Your task to perform on an android device: turn off location history Image 0: 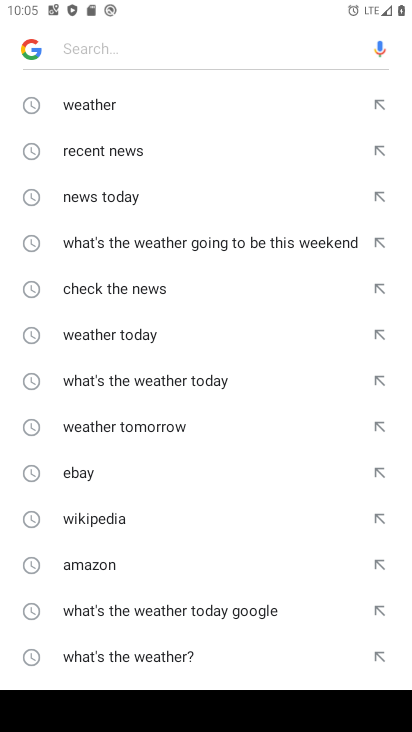
Step 0: press home button
Your task to perform on an android device: turn off location history Image 1: 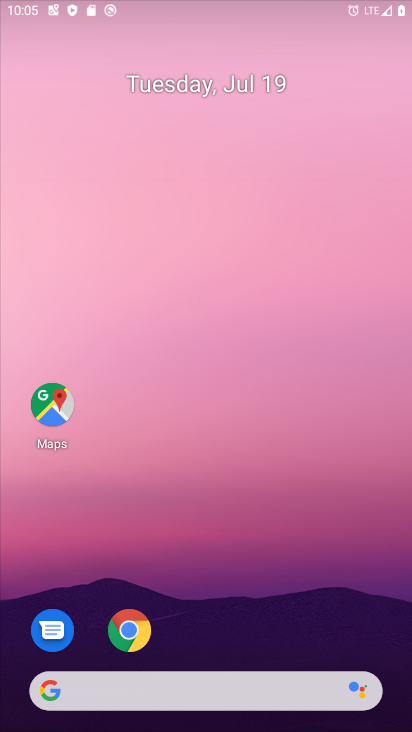
Step 1: drag from (212, 609) to (254, 106)
Your task to perform on an android device: turn off location history Image 2: 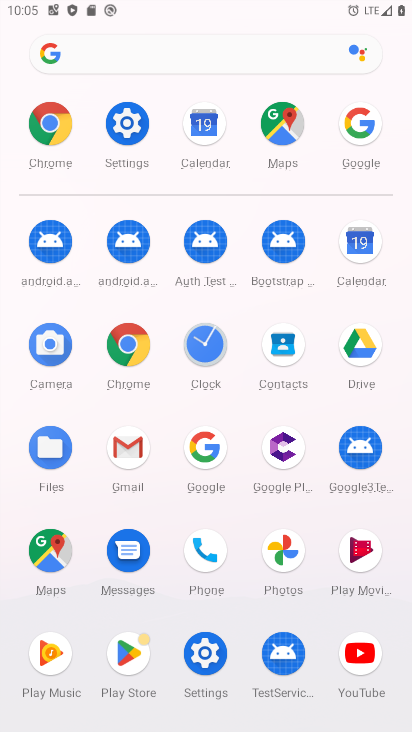
Step 2: click (126, 127)
Your task to perform on an android device: turn off location history Image 3: 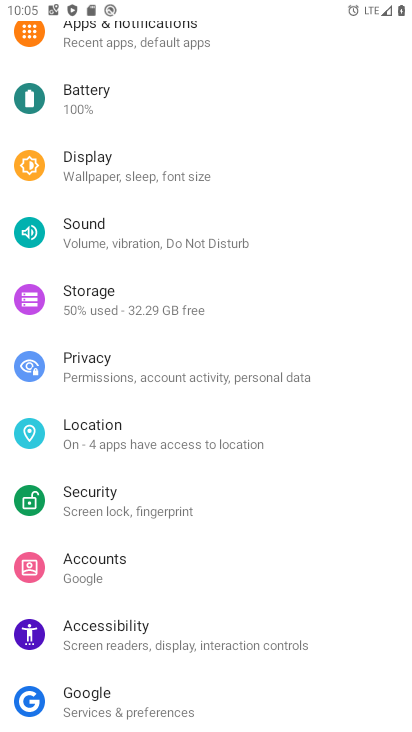
Step 3: click (152, 439)
Your task to perform on an android device: turn off location history Image 4: 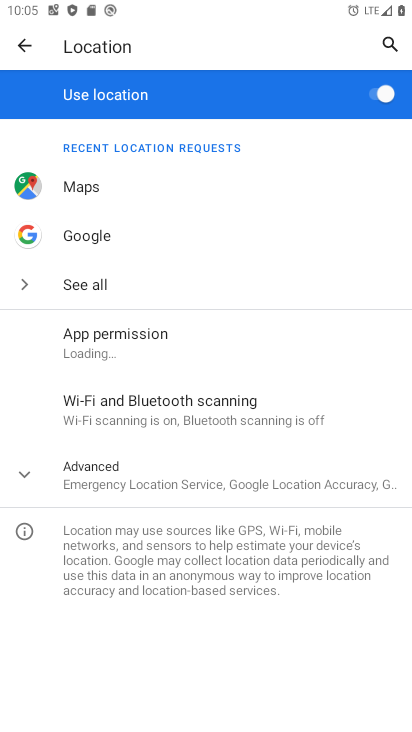
Step 4: click (121, 455)
Your task to perform on an android device: turn off location history Image 5: 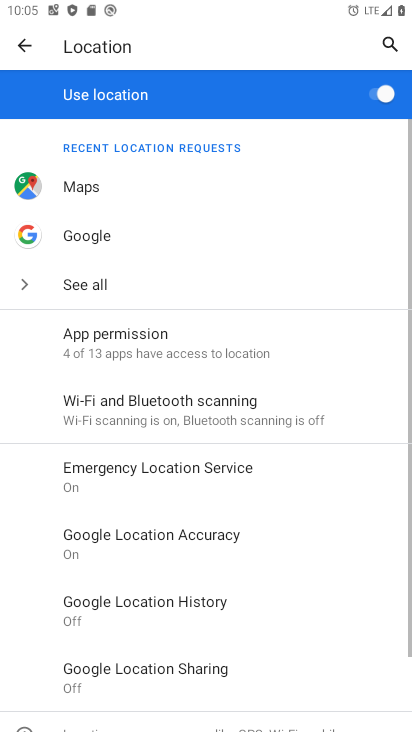
Step 5: click (201, 590)
Your task to perform on an android device: turn off location history Image 6: 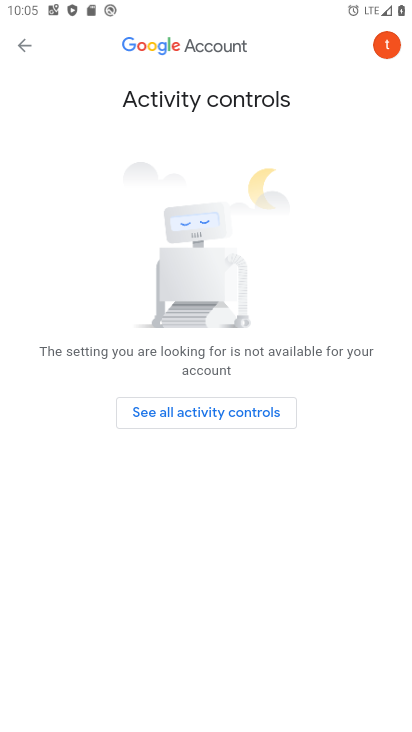
Step 6: task complete